Your task to perform on an android device: Go to wifi settings Image 0: 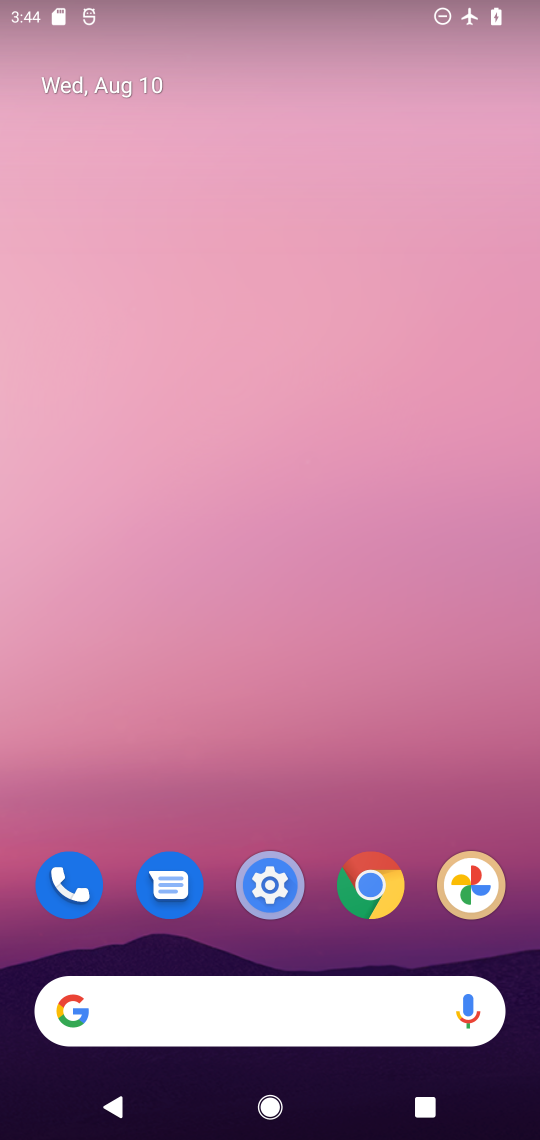
Step 0: click (274, 890)
Your task to perform on an android device: Go to wifi settings Image 1: 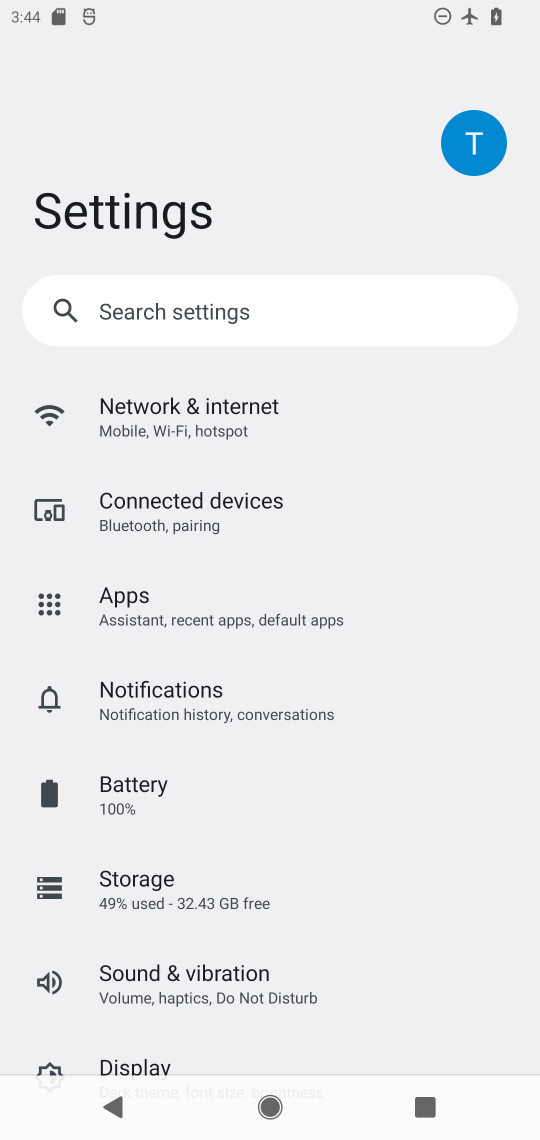
Step 1: click (213, 399)
Your task to perform on an android device: Go to wifi settings Image 2: 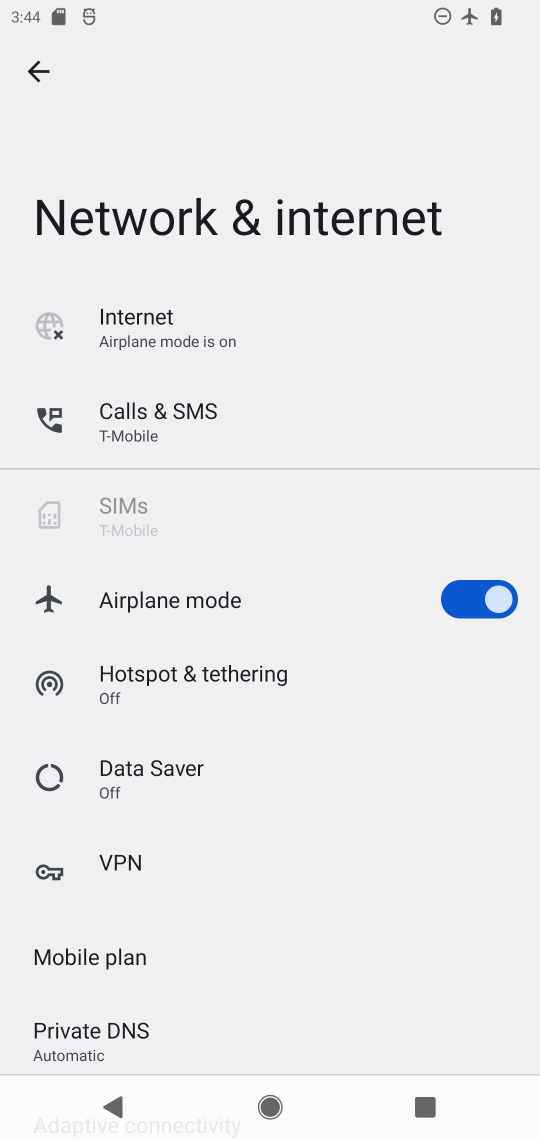
Step 2: click (137, 309)
Your task to perform on an android device: Go to wifi settings Image 3: 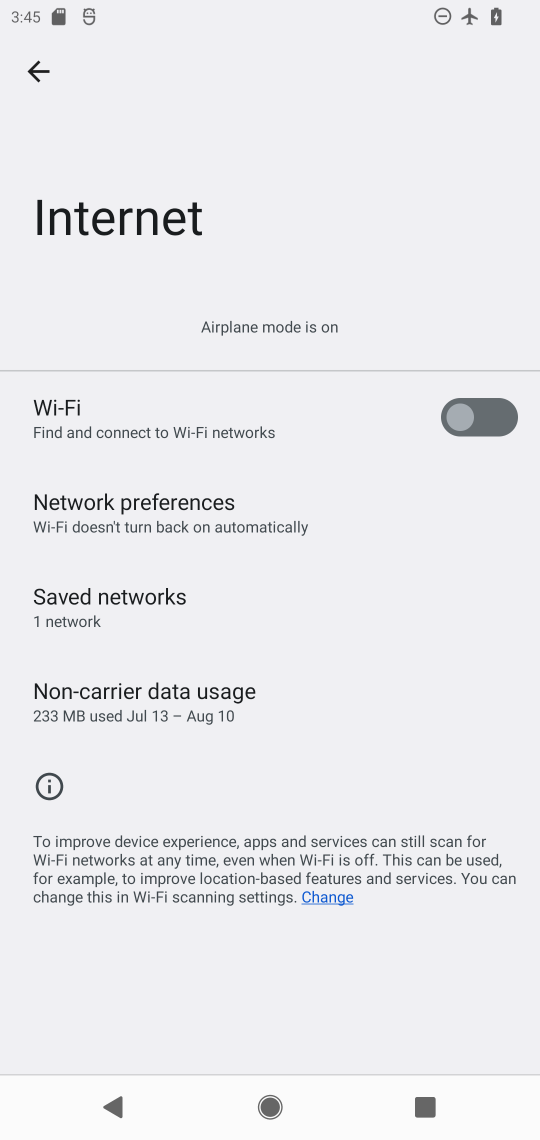
Step 3: task complete